Your task to perform on an android device: turn notification dots on Image 0: 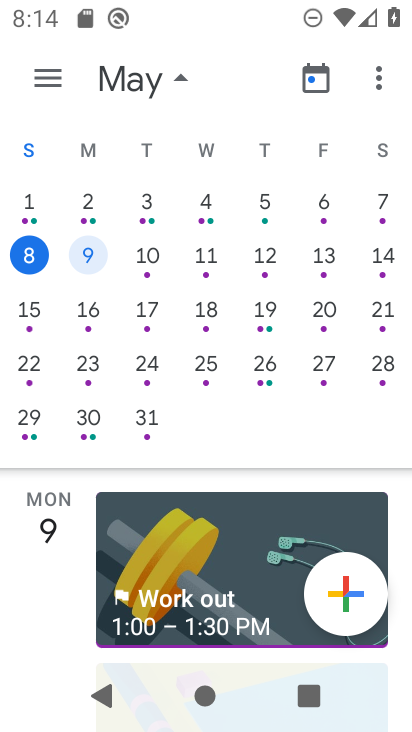
Step 0: press home button
Your task to perform on an android device: turn notification dots on Image 1: 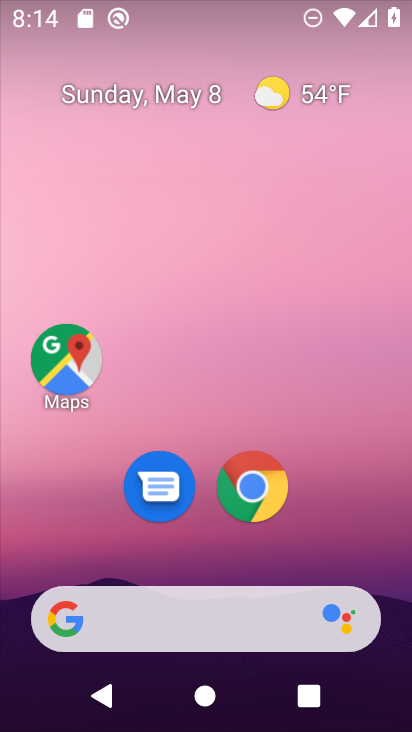
Step 1: drag from (206, 572) to (205, 194)
Your task to perform on an android device: turn notification dots on Image 2: 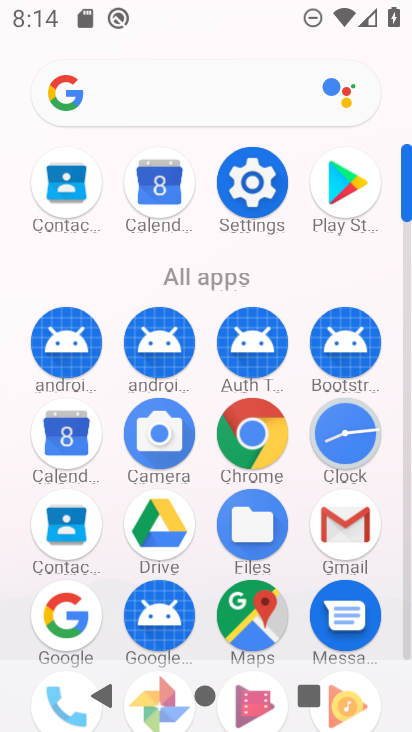
Step 2: click (258, 191)
Your task to perform on an android device: turn notification dots on Image 3: 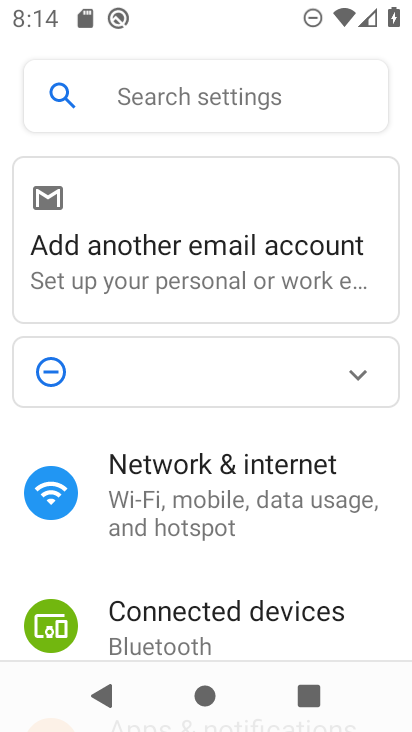
Step 3: drag from (183, 618) to (249, 384)
Your task to perform on an android device: turn notification dots on Image 4: 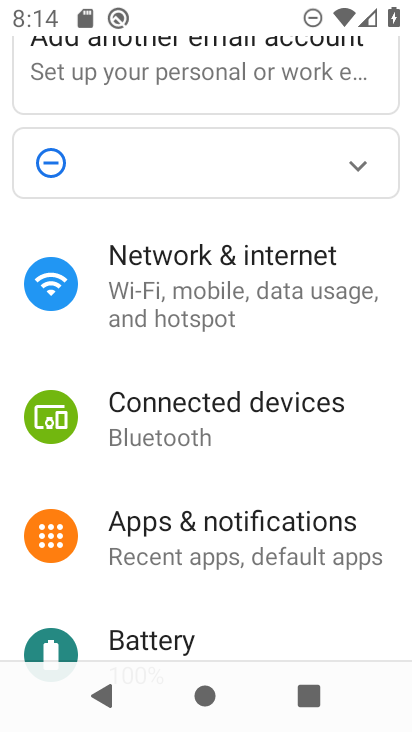
Step 4: click (231, 534)
Your task to perform on an android device: turn notification dots on Image 5: 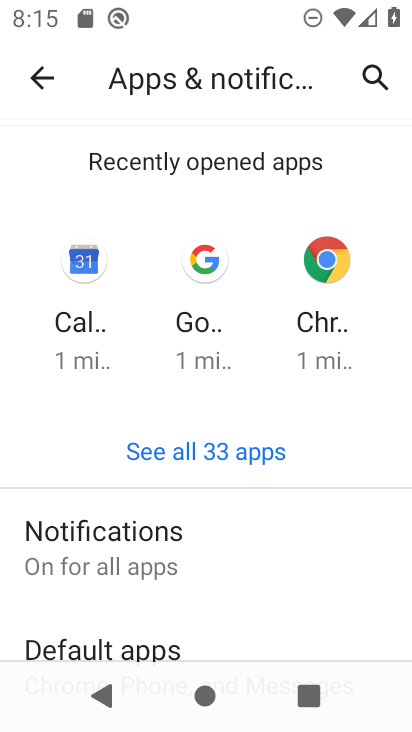
Step 5: drag from (224, 588) to (283, 254)
Your task to perform on an android device: turn notification dots on Image 6: 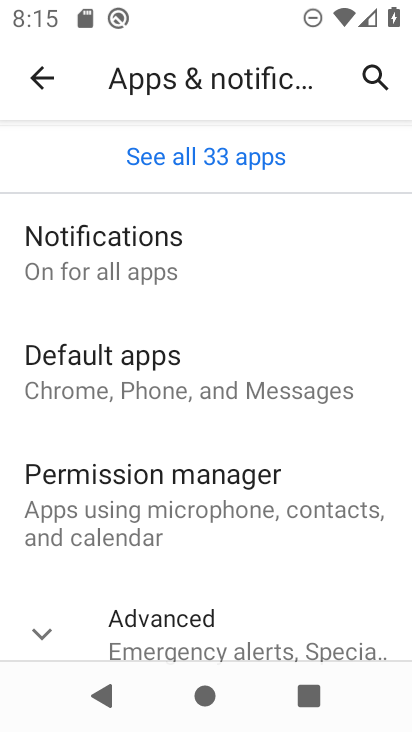
Step 6: click (141, 264)
Your task to perform on an android device: turn notification dots on Image 7: 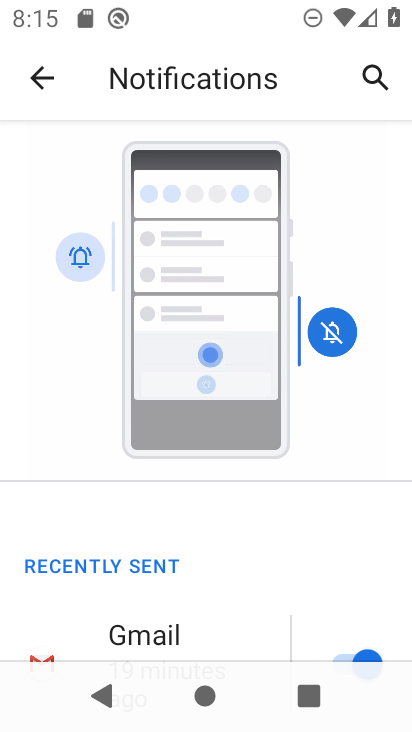
Step 7: drag from (207, 610) to (271, 143)
Your task to perform on an android device: turn notification dots on Image 8: 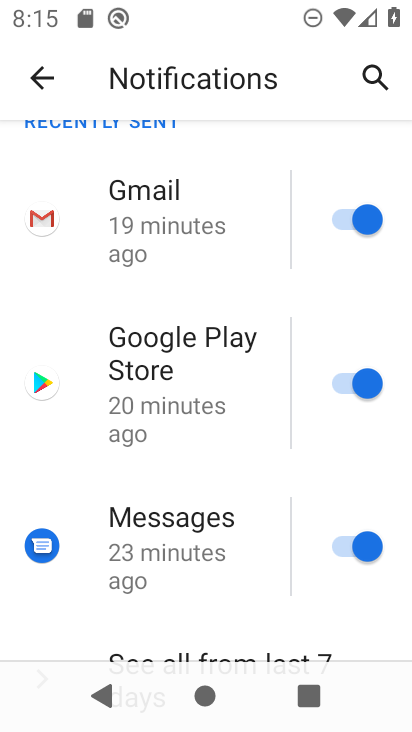
Step 8: drag from (253, 607) to (291, 222)
Your task to perform on an android device: turn notification dots on Image 9: 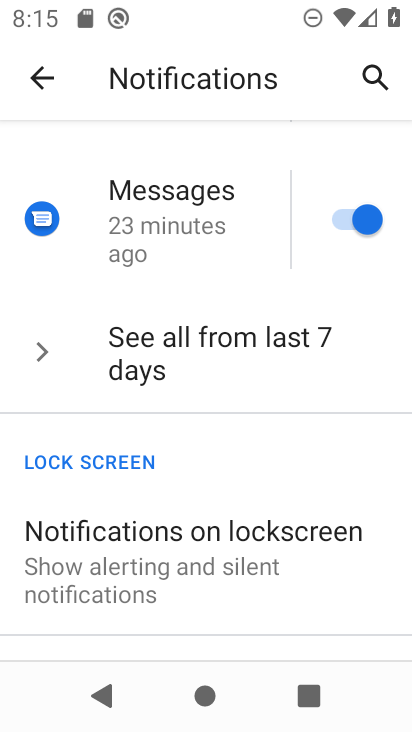
Step 9: drag from (236, 614) to (307, 225)
Your task to perform on an android device: turn notification dots on Image 10: 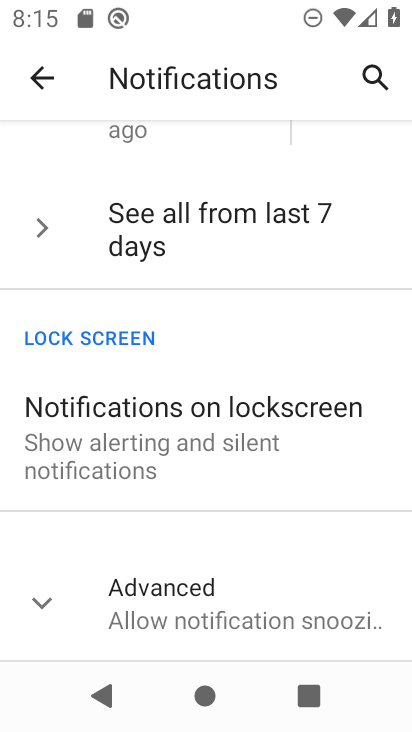
Step 10: click (34, 606)
Your task to perform on an android device: turn notification dots on Image 11: 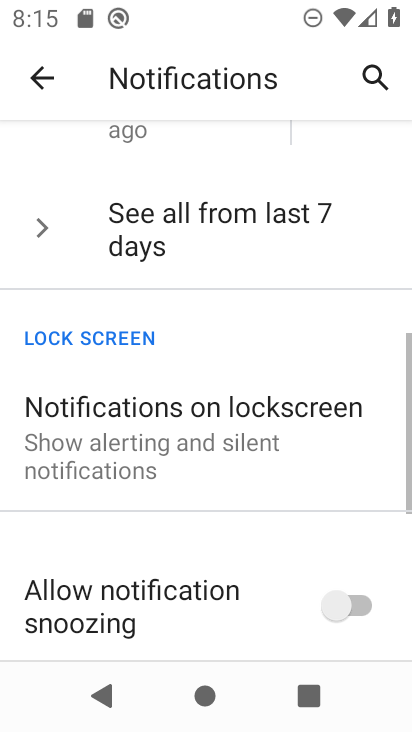
Step 11: drag from (251, 634) to (284, 255)
Your task to perform on an android device: turn notification dots on Image 12: 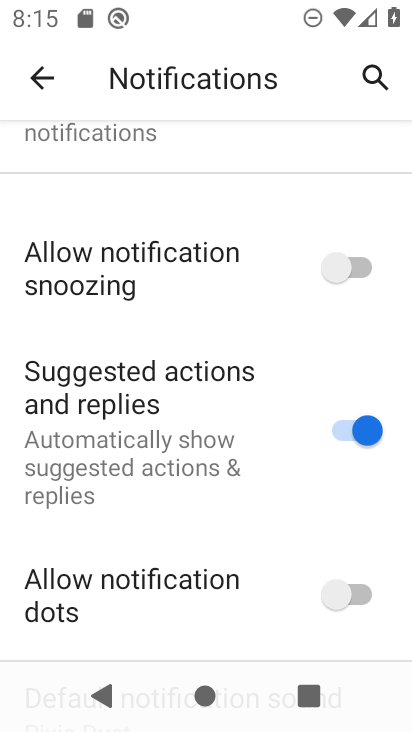
Step 12: click (341, 595)
Your task to perform on an android device: turn notification dots on Image 13: 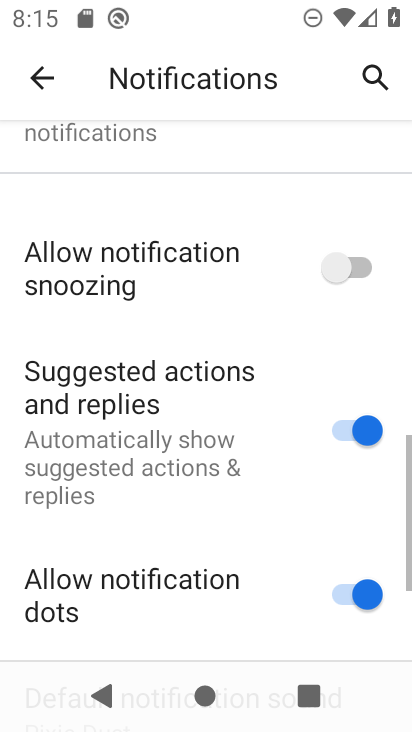
Step 13: task complete